Your task to perform on an android device: open a bookmark in the chrome app Image 0: 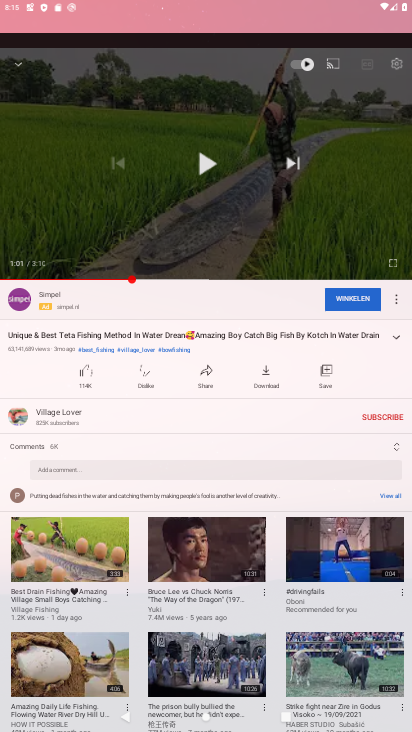
Step 0: press home button
Your task to perform on an android device: open a bookmark in the chrome app Image 1: 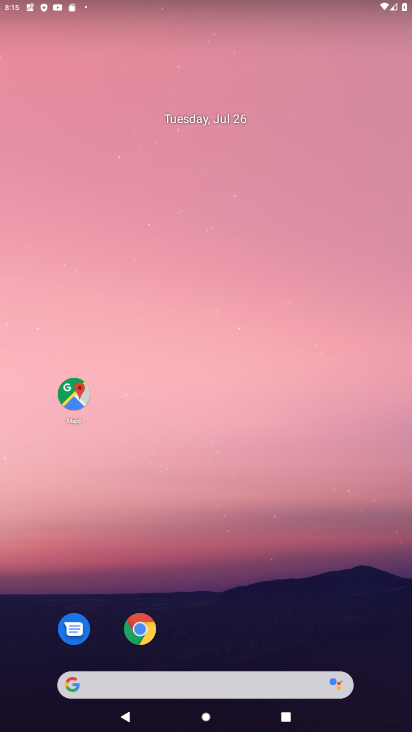
Step 1: click (138, 621)
Your task to perform on an android device: open a bookmark in the chrome app Image 2: 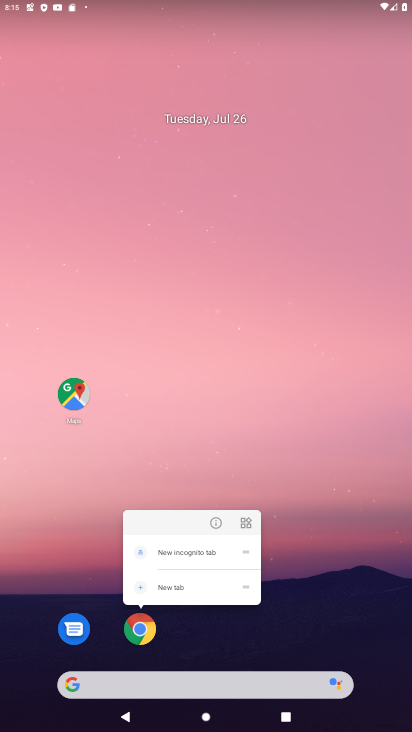
Step 2: click (137, 624)
Your task to perform on an android device: open a bookmark in the chrome app Image 3: 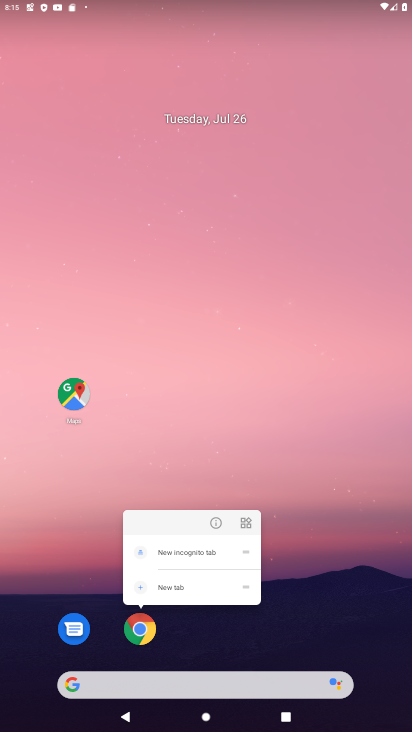
Step 3: click (317, 626)
Your task to perform on an android device: open a bookmark in the chrome app Image 4: 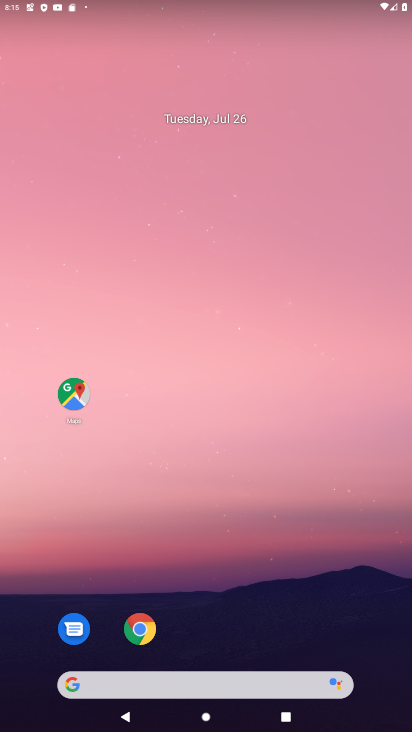
Step 4: click (139, 627)
Your task to perform on an android device: open a bookmark in the chrome app Image 5: 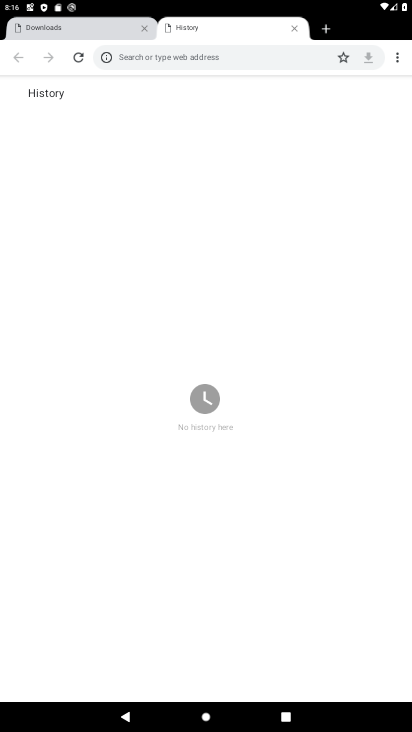
Step 5: click (398, 52)
Your task to perform on an android device: open a bookmark in the chrome app Image 6: 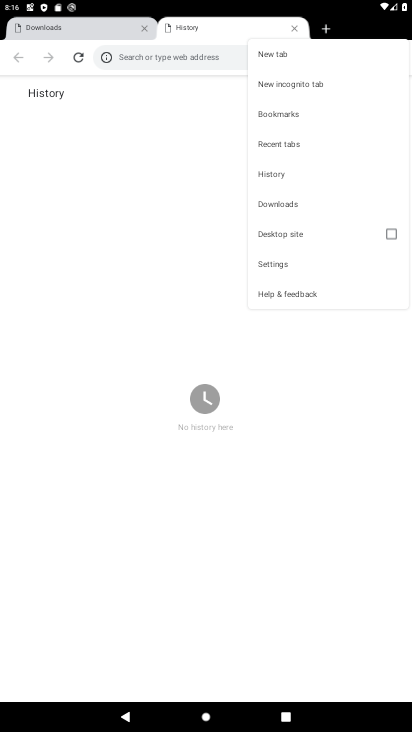
Step 6: click (307, 112)
Your task to perform on an android device: open a bookmark in the chrome app Image 7: 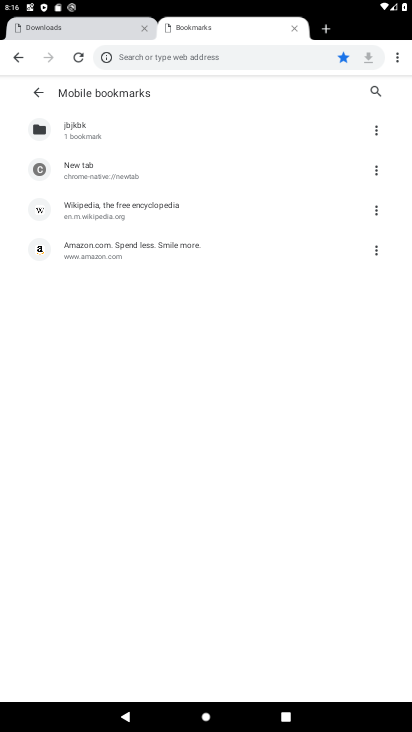
Step 7: task complete